Your task to perform on an android device: Open the calendar and show me this week's events? Image 0: 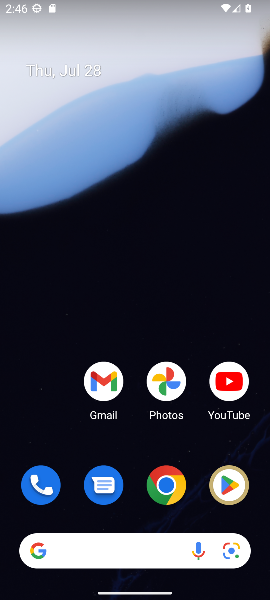
Step 0: drag from (148, 437) to (176, 218)
Your task to perform on an android device: Open the calendar and show me this week's events? Image 1: 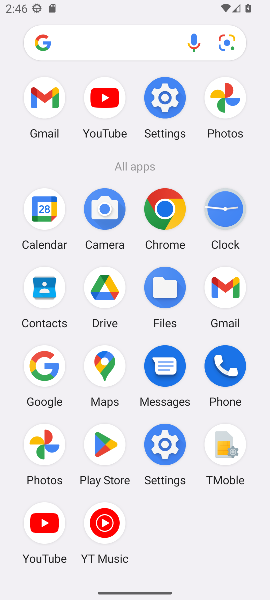
Step 1: click (40, 206)
Your task to perform on an android device: Open the calendar and show me this week's events? Image 2: 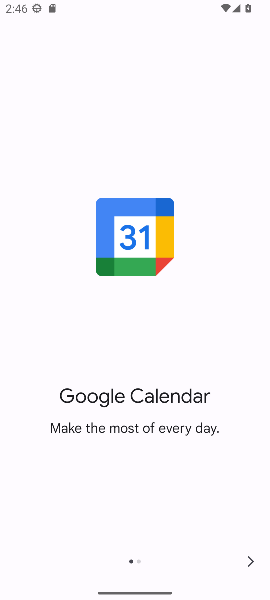
Step 2: click (249, 560)
Your task to perform on an android device: Open the calendar and show me this week's events? Image 3: 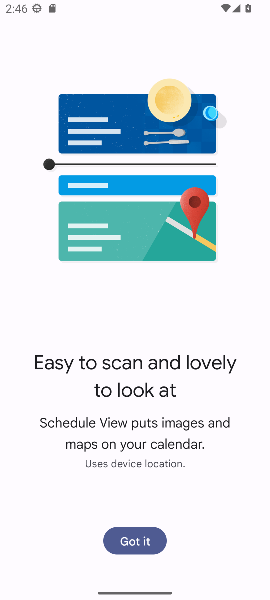
Step 3: click (250, 560)
Your task to perform on an android device: Open the calendar and show me this week's events? Image 4: 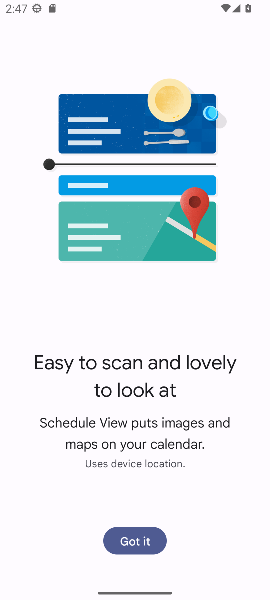
Step 4: click (122, 536)
Your task to perform on an android device: Open the calendar and show me this week's events? Image 5: 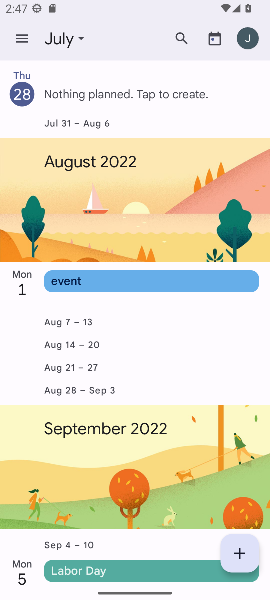
Step 5: click (25, 39)
Your task to perform on an android device: Open the calendar and show me this week's events? Image 6: 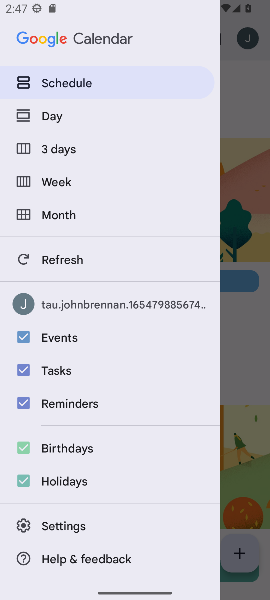
Step 6: click (62, 182)
Your task to perform on an android device: Open the calendar and show me this week's events? Image 7: 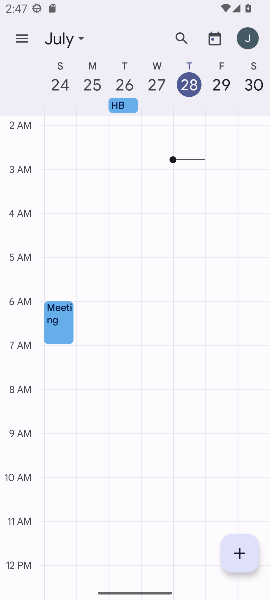
Step 7: task complete